Your task to perform on an android device: Open display settings Image 0: 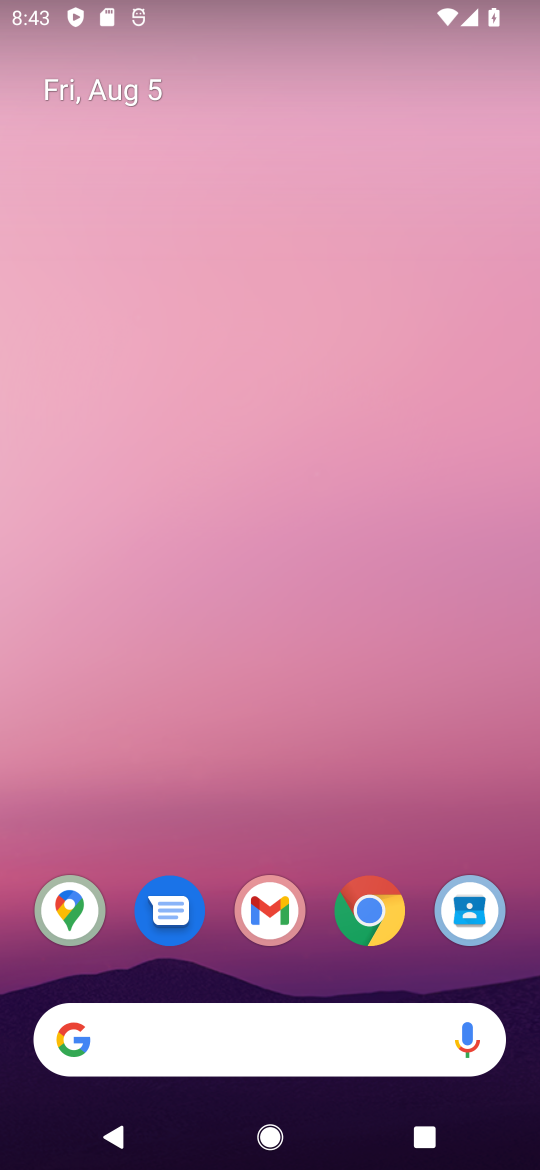
Step 0: press home button
Your task to perform on an android device: Open display settings Image 1: 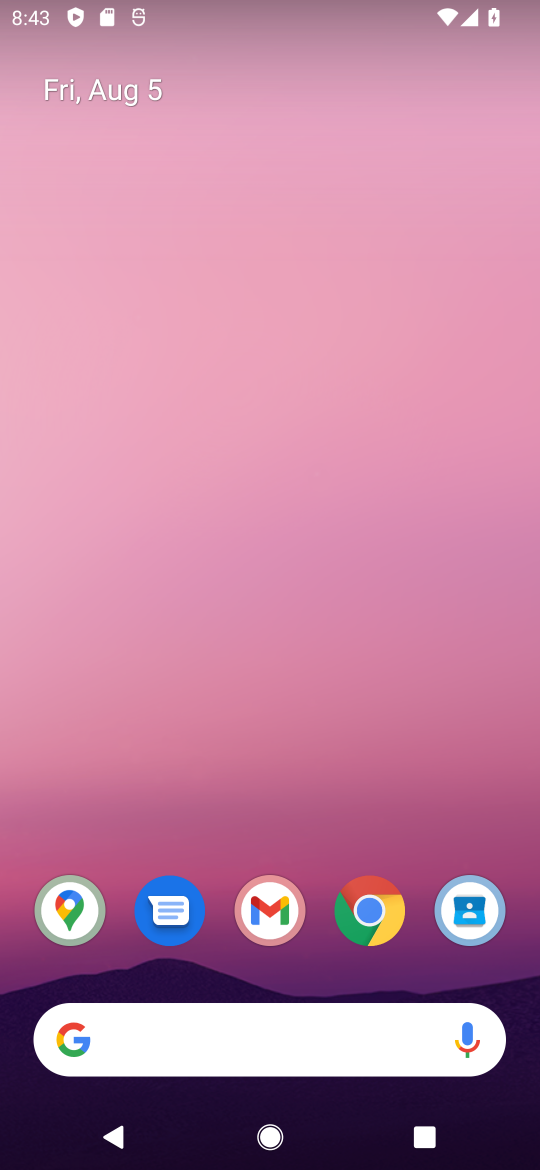
Step 1: drag from (287, 1028) to (454, 133)
Your task to perform on an android device: Open display settings Image 2: 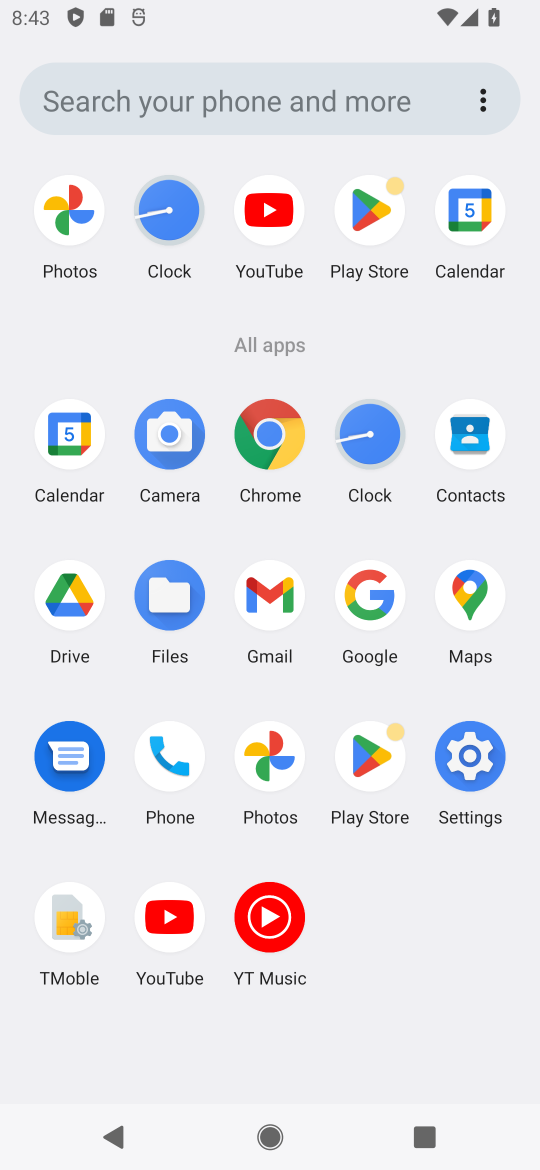
Step 2: drag from (478, 763) to (261, 698)
Your task to perform on an android device: Open display settings Image 3: 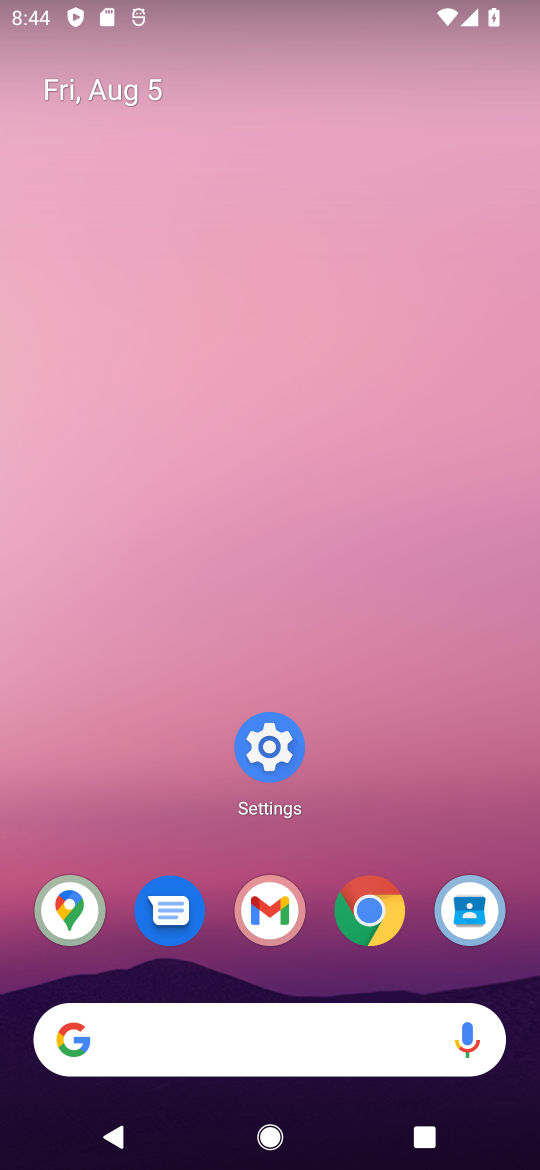
Step 3: click (278, 744)
Your task to perform on an android device: Open display settings Image 4: 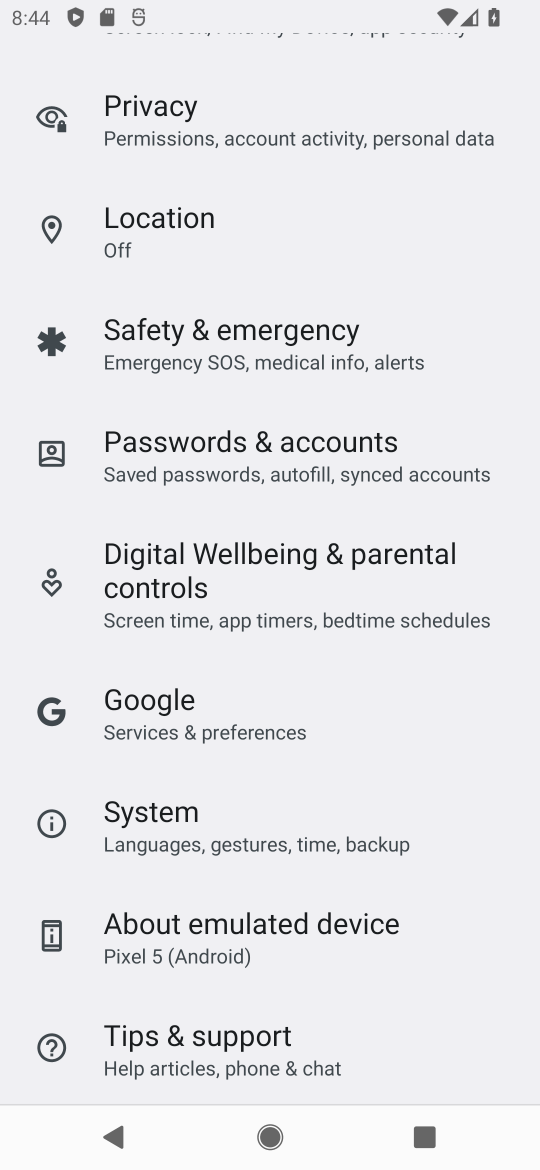
Step 4: drag from (401, 312) to (347, 956)
Your task to perform on an android device: Open display settings Image 5: 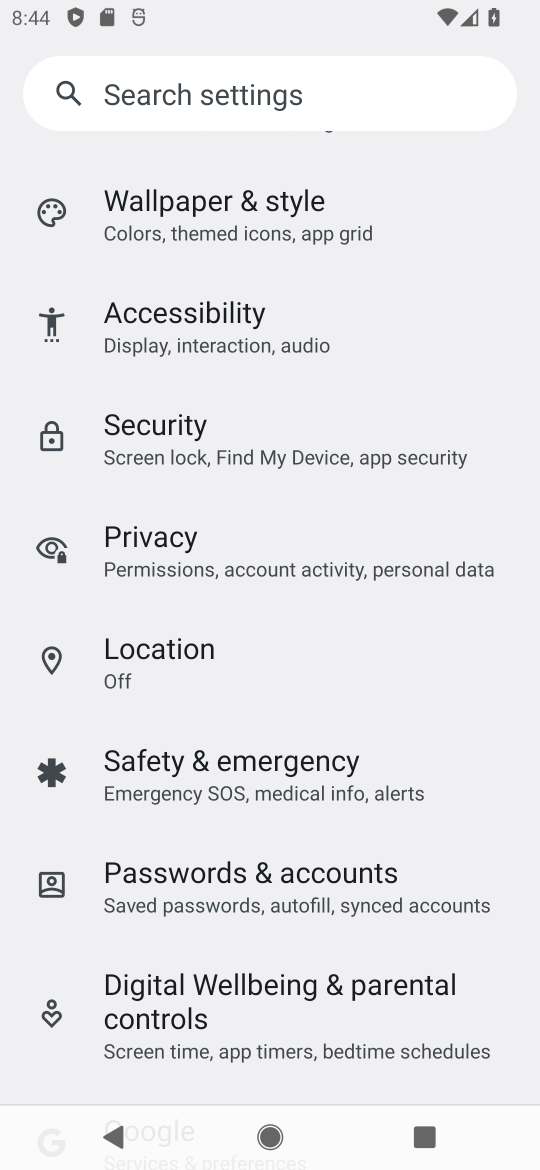
Step 5: drag from (314, 301) to (286, 904)
Your task to perform on an android device: Open display settings Image 6: 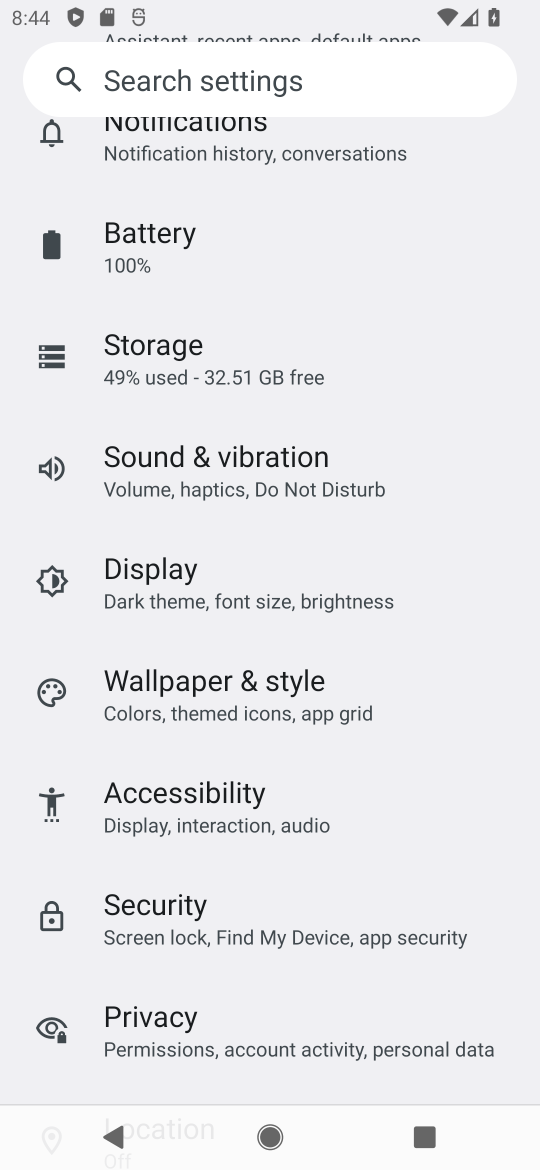
Step 6: click (154, 560)
Your task to perform on an android device: Open display settings Image 7: 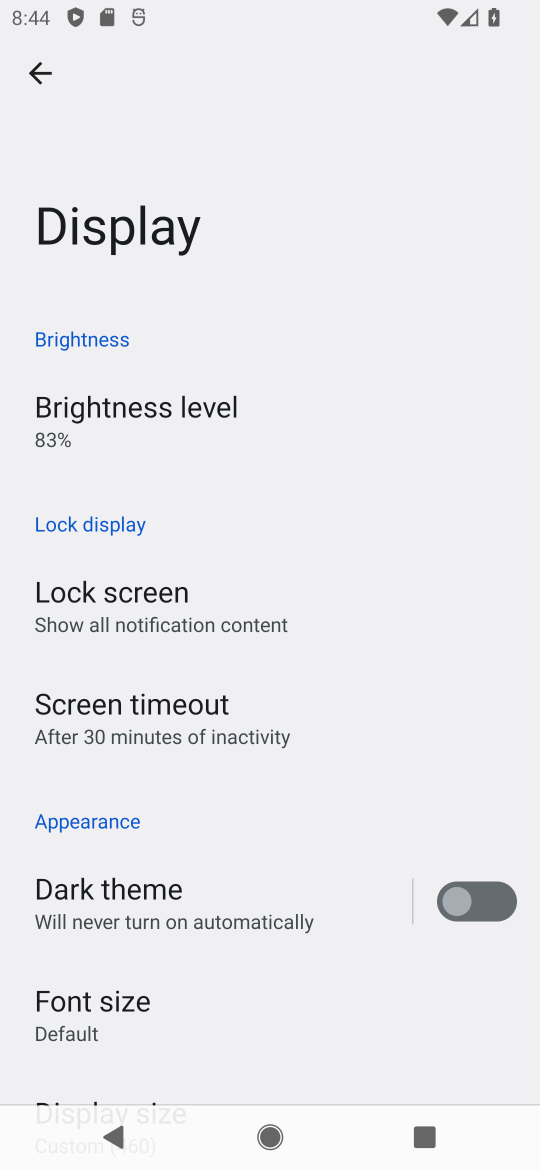
Step 7: task complete